Your task to perform on an android device: turn on data saver in the chrome app Image 0: 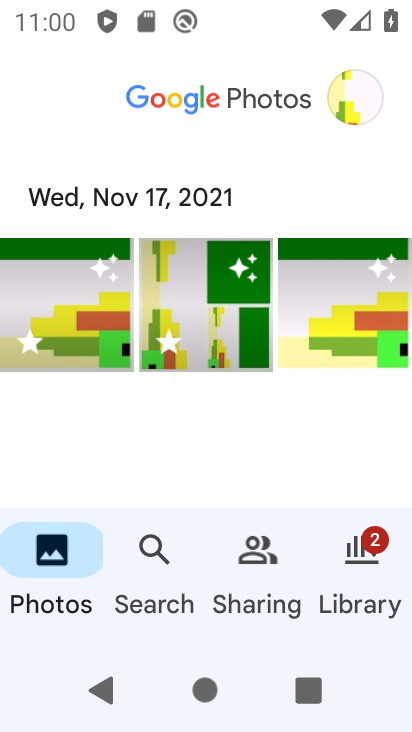
Step 0: press home button
Your task to perform on an android device: turn on data saver in the chrome app Image 1: 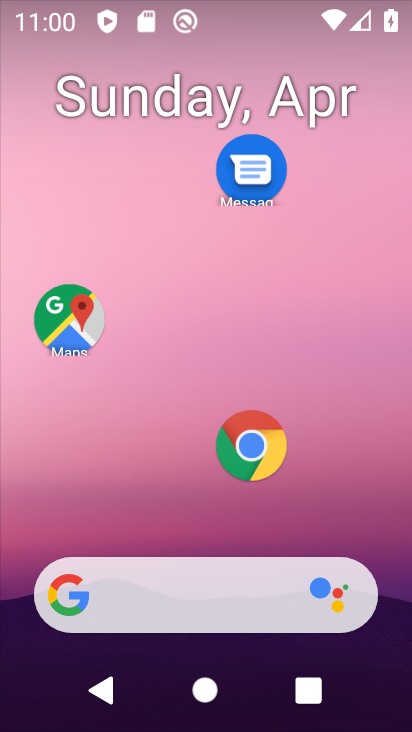
Step 1: drag from (155, 574) to (249, 183)
Your task to perform on an android device: turn on data saver in the chrome app Image 2: 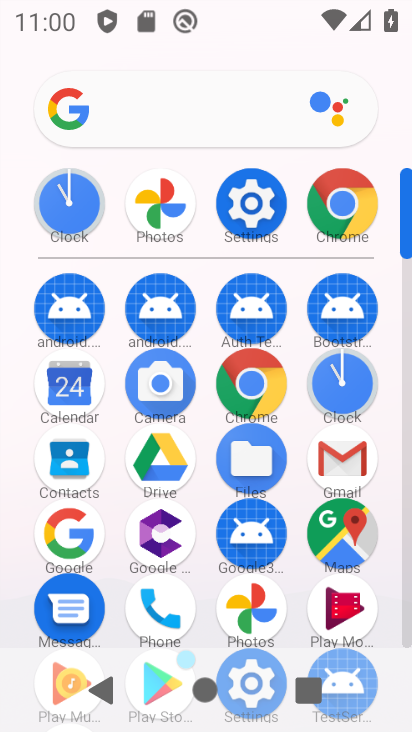
Step 2: click (338, 194)
Your task to perform on an android device: turn on data saver in the chrome app Image 3: 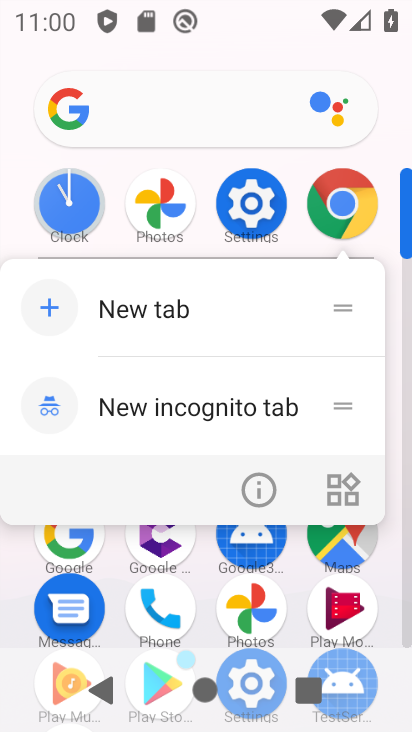
Step 3: click (351, 221)
Your task to perform on an android device: turn on data saver in the chrome app Image 4: 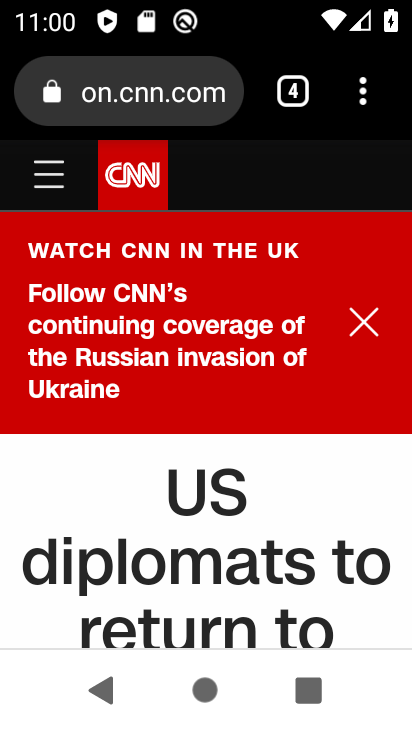
Step 4: click (362, 100)
Your task to perform on an android device: turn on data saver in the chrome app Image 5: 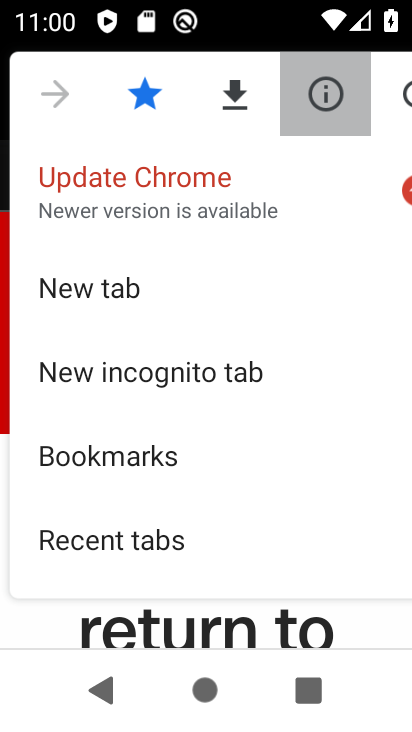
Step 5: drag from (177, 462) to (238, 188)
Your task to perform on an android device: turn on data saver in the chrome app Image 6: 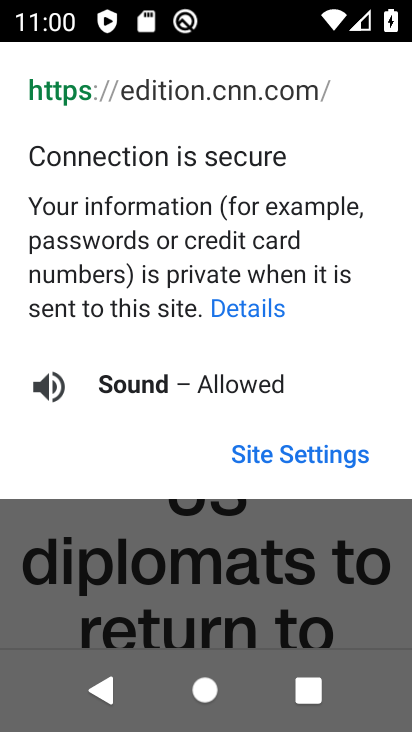
Step 6: press back button
Your task to perform on an android device: turn on data saver in the chrome app Image 7: 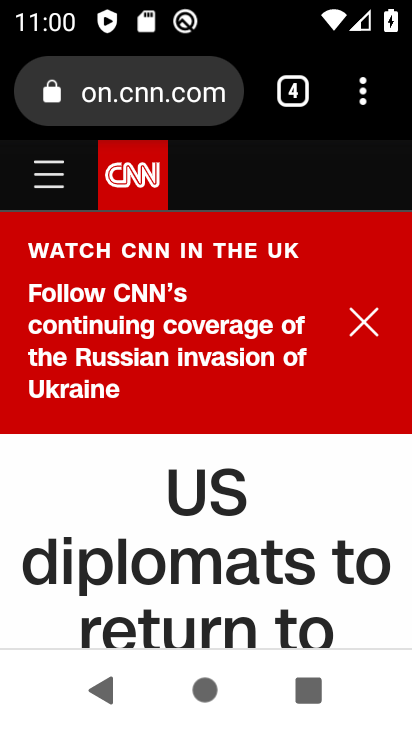
Step 7: drag from (362, 82) to (178, 473)
Your task to perform on an android device: turn on data saver in the chrome app Image 8: 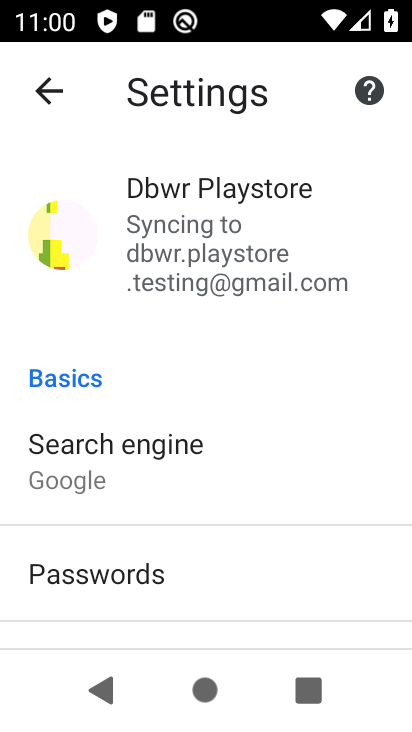
Step 8: drag from (104, 600) to (275, 168)
Your task to perform on an android device: turn on data saver in the chrome app Image 9: 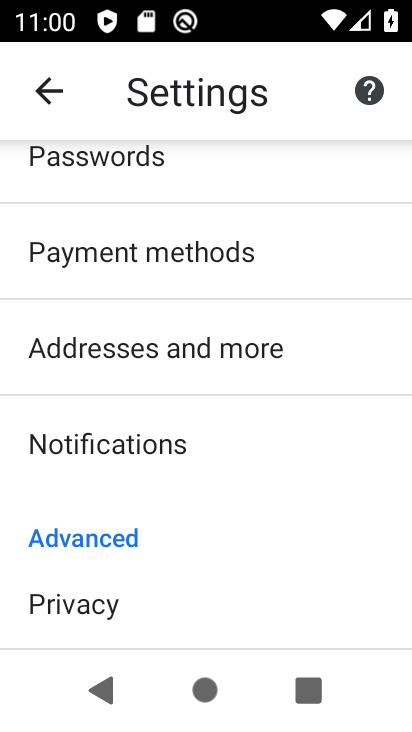
Step 9: drag from (164, 590) to (329, 195)
Your task to perform on an android device: turn on data saver in the chrome app Image 10: 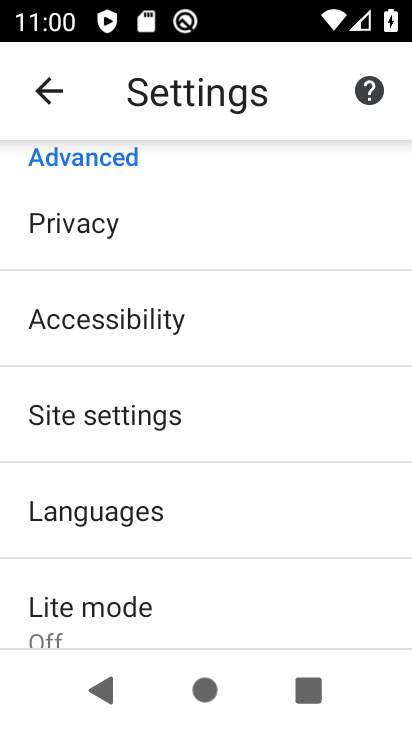
Step 10: click (146, 617)
Your task to perform on an android device: turn on data saver in the chrome app Image 11: 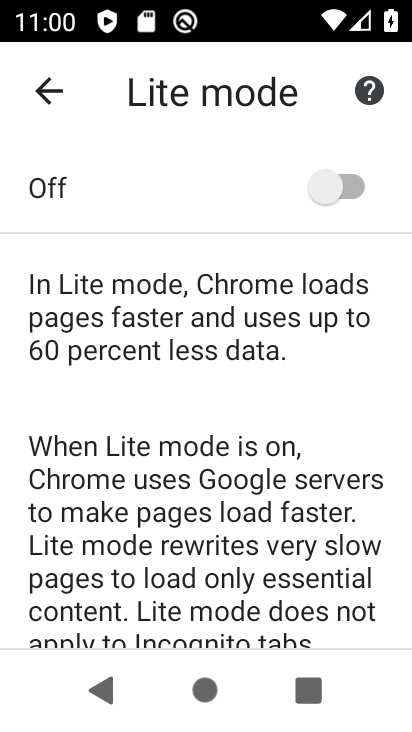
Step 11: click (338, 187)
Your task to perform on an android device: turn on data saver in the chrome app Image 12: 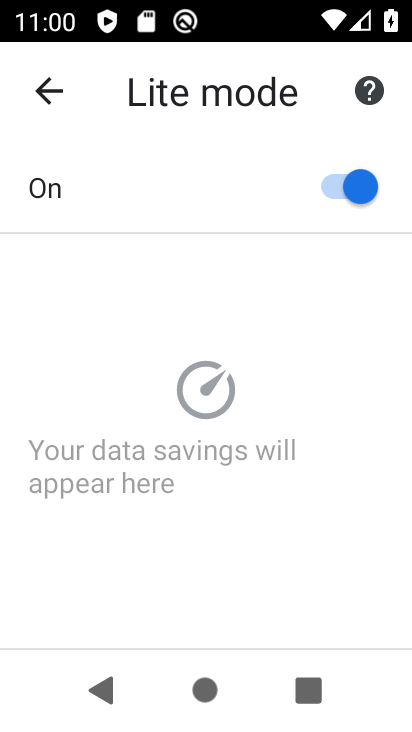
Step 12: task complete